Your task to perform on an android device: turn on the 12-hour format for clock Image 0: 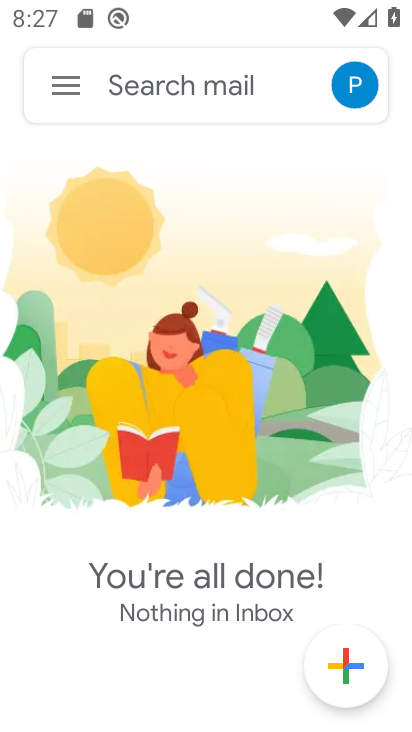
Step 0: press home button
Your task to perform on an android device: turn on the 12-hour format for clock Image 1: 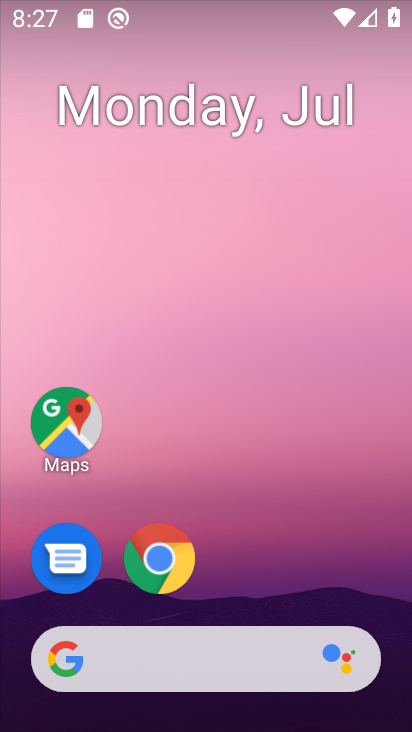
Step 1: drag from (278, 547) to (297, 185)
Your task to perform on an android device: turn on the 12-hour format for clock Image 2: 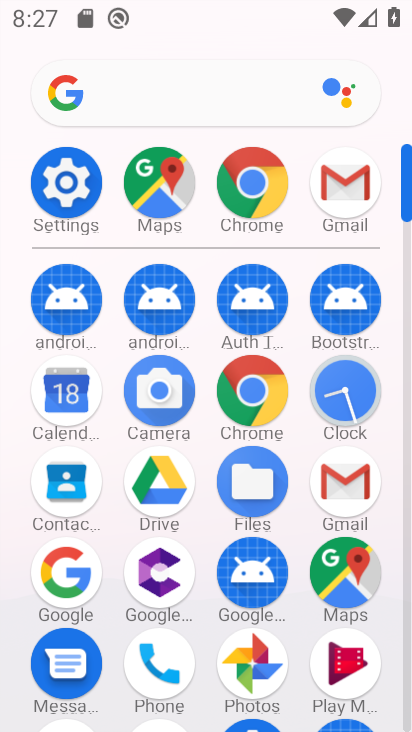
Step 2: click (364, 393)
Your task to perform on an android device: turn on the 12-hour format for clock Image 3: 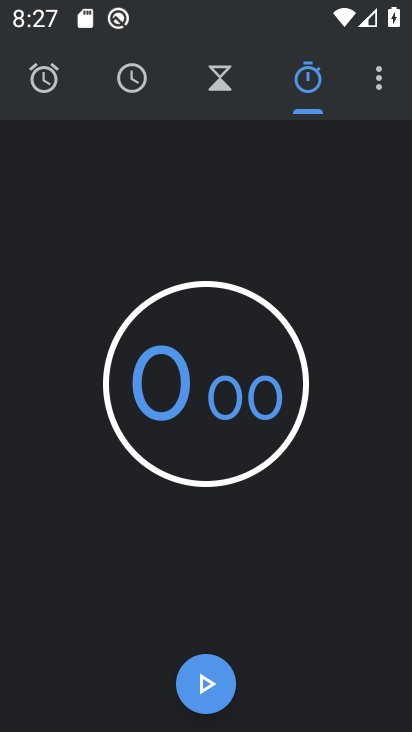
Step 3: click (378, 85)
Your task to perform on an android device: turn on the 12-hour format for clock Image 4: 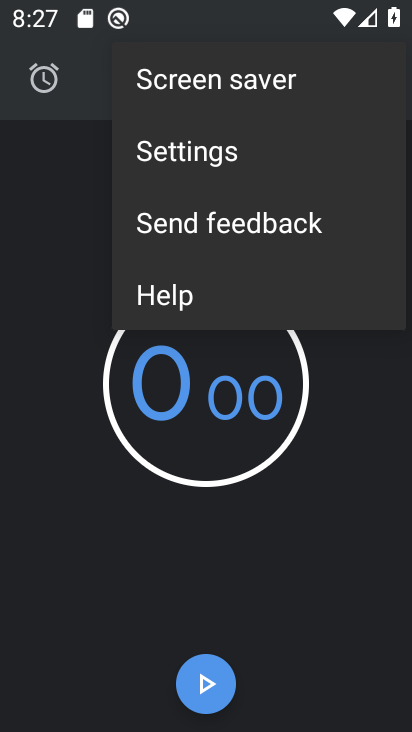
Step 4: click (292, 158)
Your task to perform on an android device: turn on the 12-hour format for clock Image 5: 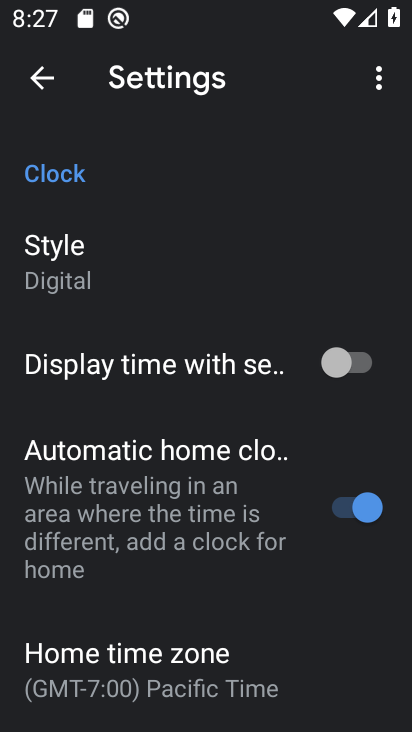
Step 5: drag from (286, 666) to (290, 526)
Your task to perform on an android device: turn on the 12-hour format for clock Image 6: 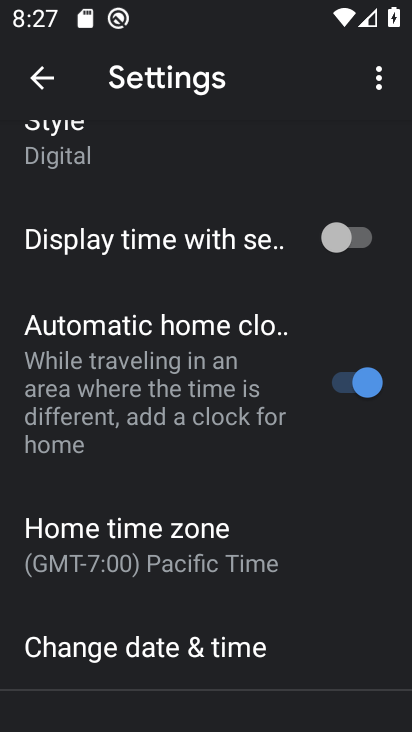
Step 6: drag from (303, 634) to (313, 554)
Your task to perform on an android device: turn on the 12-hour format for clock Image 7: 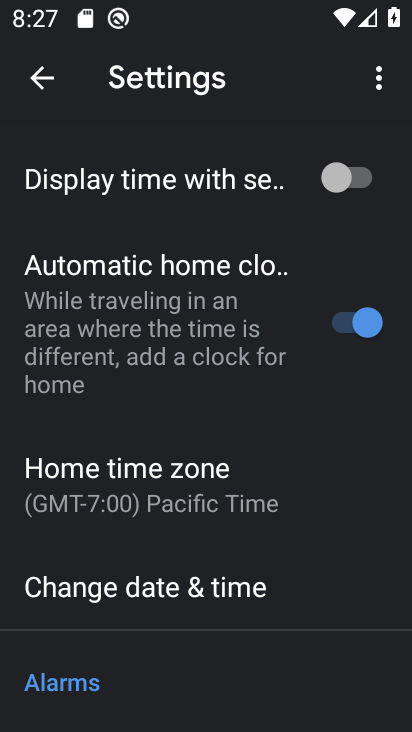
Step 7: drag from (341, 660) to (338, 524)
Your task to perform on an android device: turn on the 12-hour format for clock Image 8: 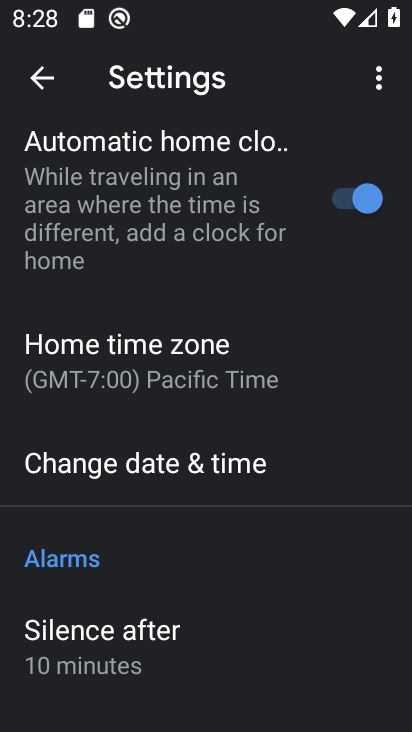
Step 8: click (291, 489)
Your task to perform on an android device: turn on the 12-hour format for clock Image 9: 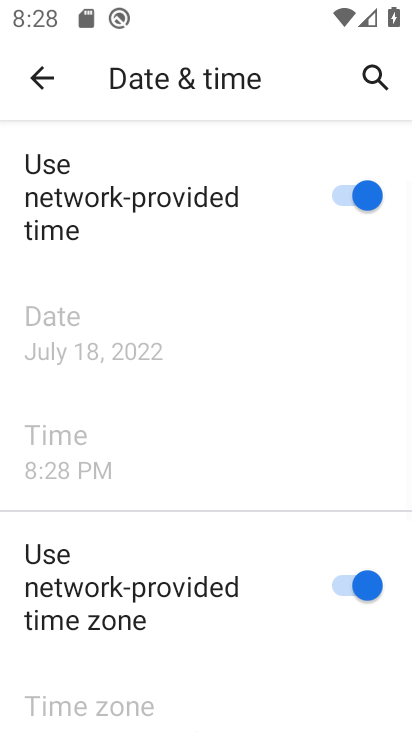
Step 9: task complete